Your task to perform on an android device: Clear the shopping cart on target. Image 0: 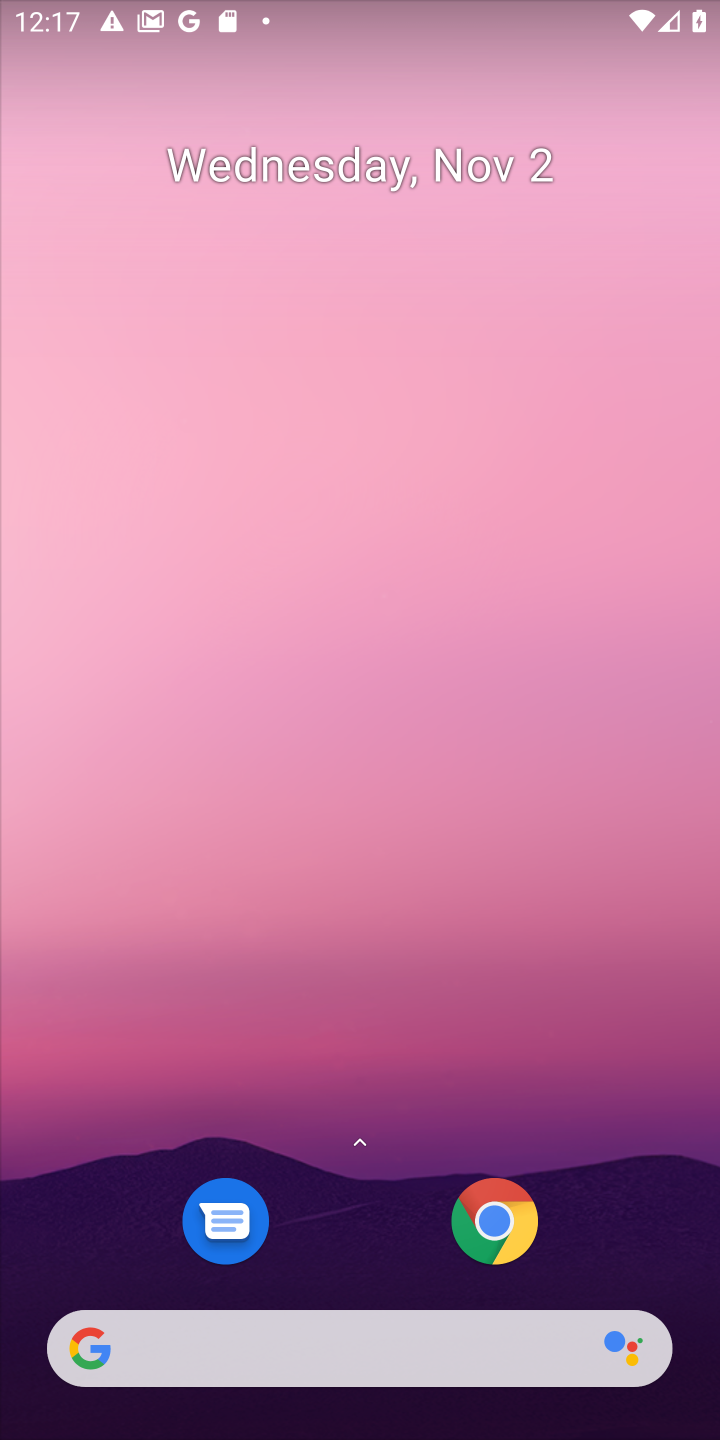
Step 0: press home button
Your task to perform on an android device: Clear the shopping cart on target. Image 1: 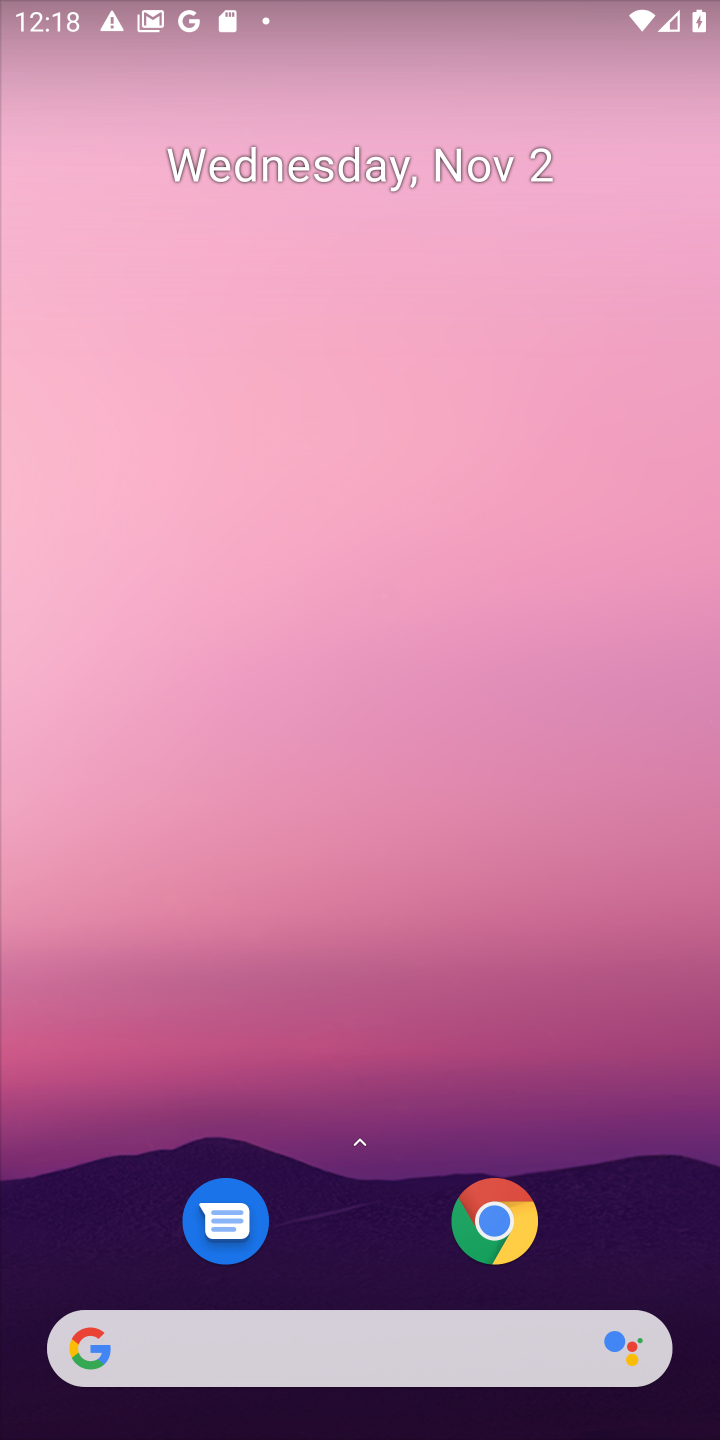
Step 1: click (288, 1341)
Your task to perform on an android device: Clear the shopping cart on target. Image 2: 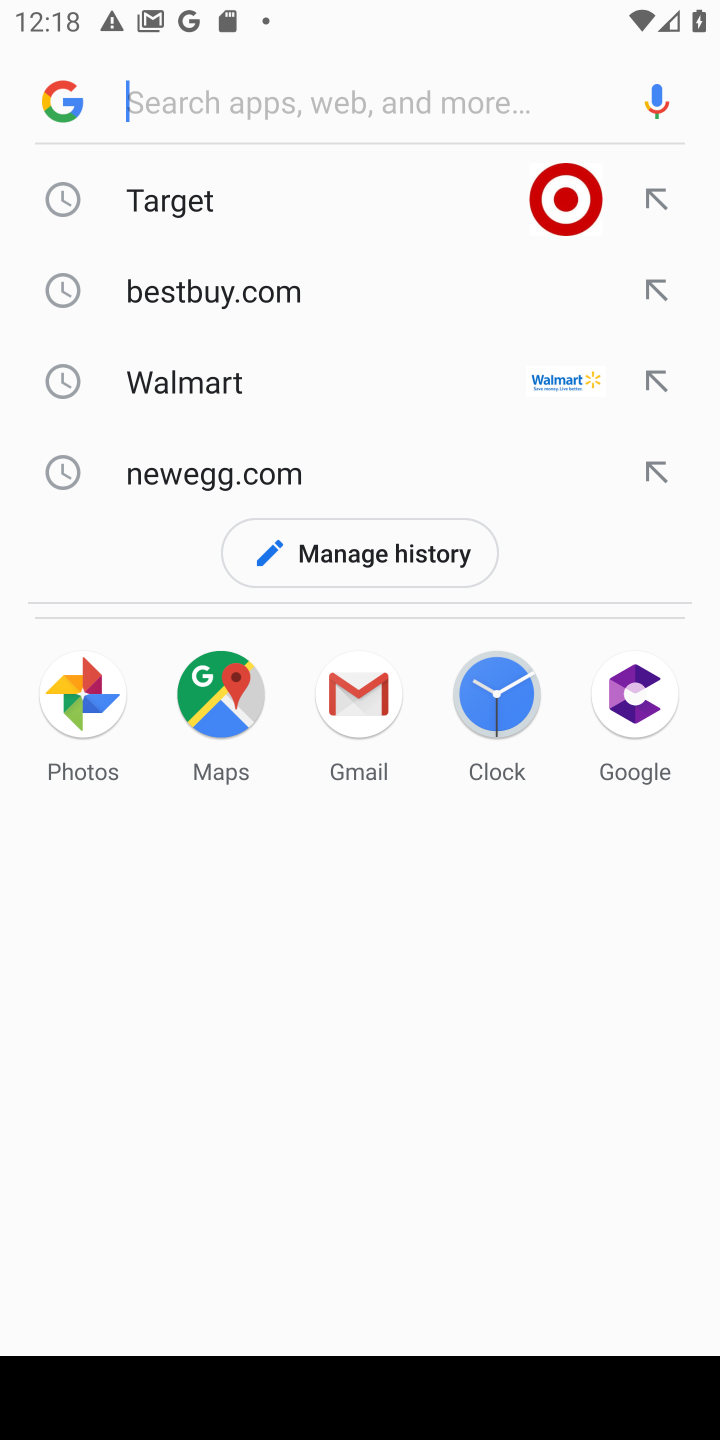
Step 2: click (233, 221)
Your task to perform on an android device: Clear the shopping cart on target. Image 3: 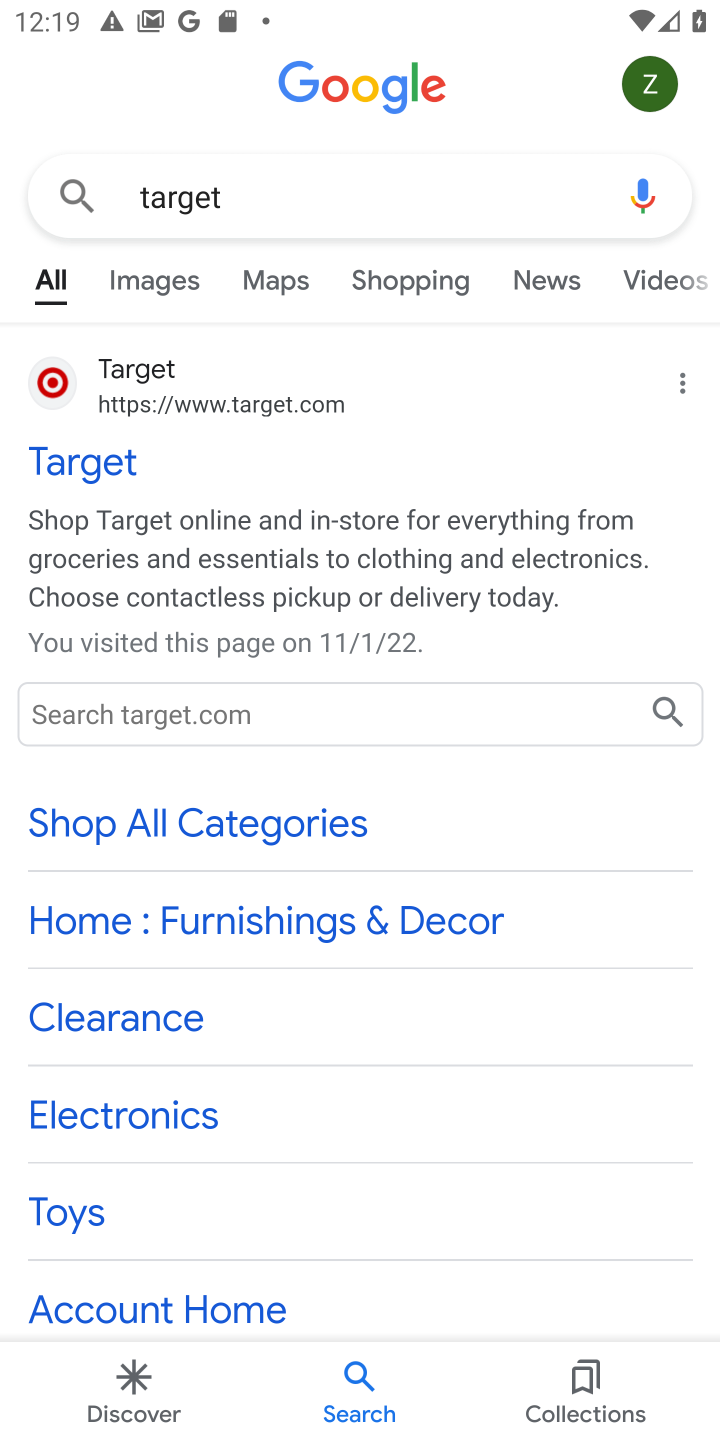
Step 3: click (37, 482)
Your task to perform on an android device: Clear the shopping cart on target. Image 4: 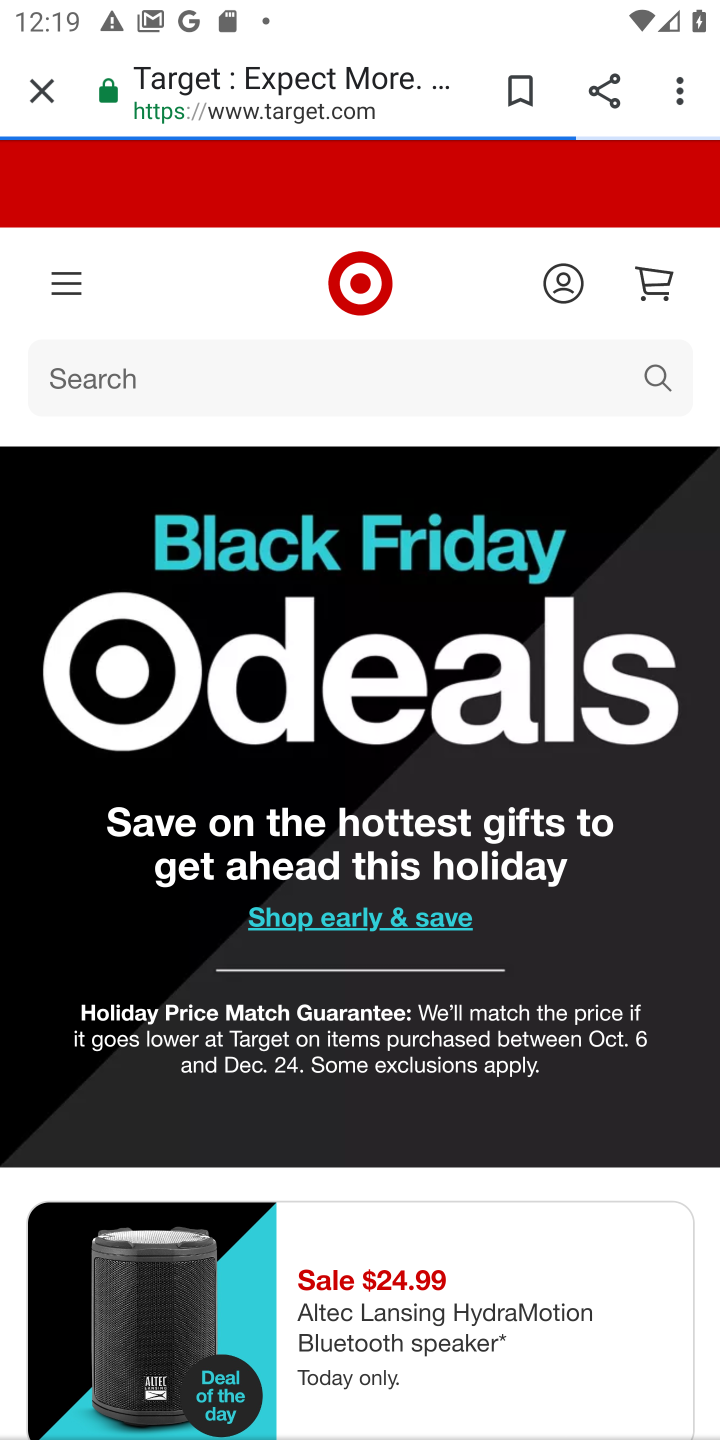
Step 4: click (418, 393)
Your task to perform on an android device: Clear the shopping cart on target. Image 5: 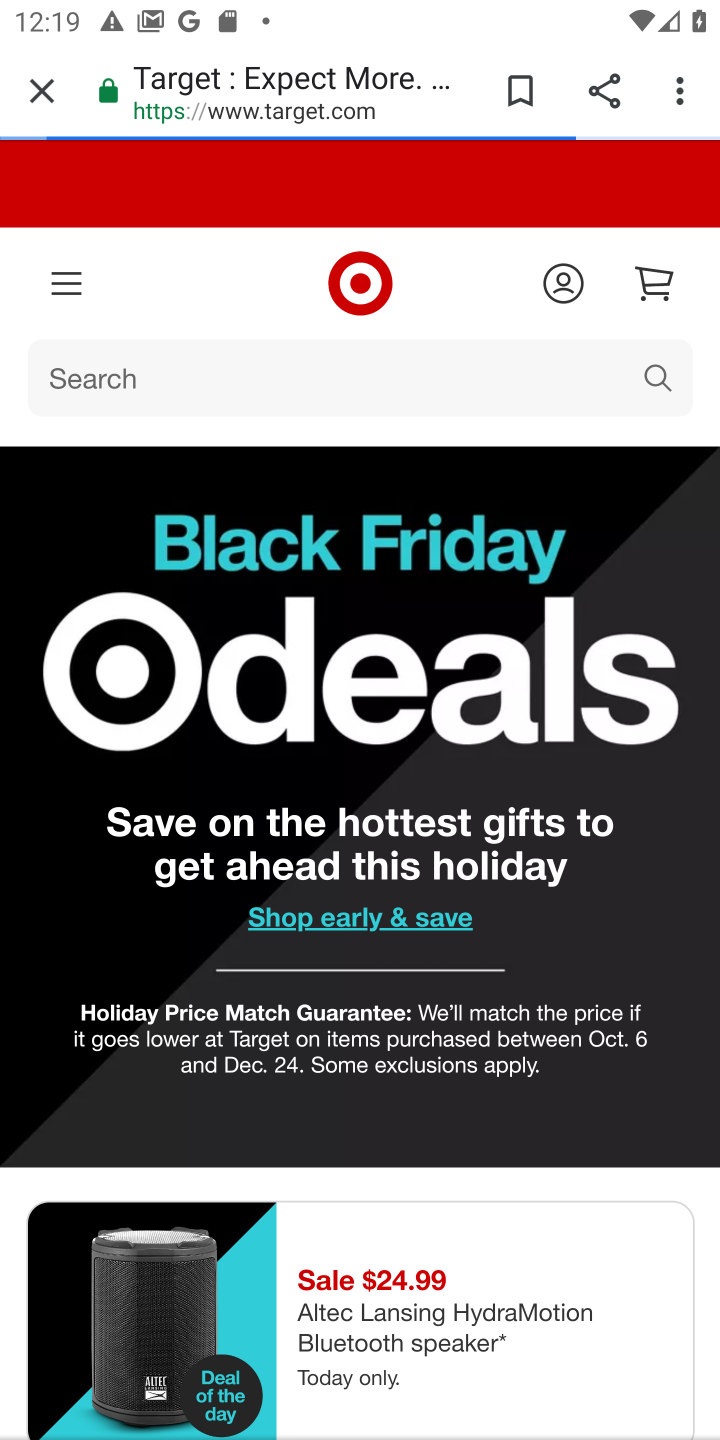
Step 5: click (655, 309)
Your task to perform on an android device: Clear the shopping cart on target. Image 6: 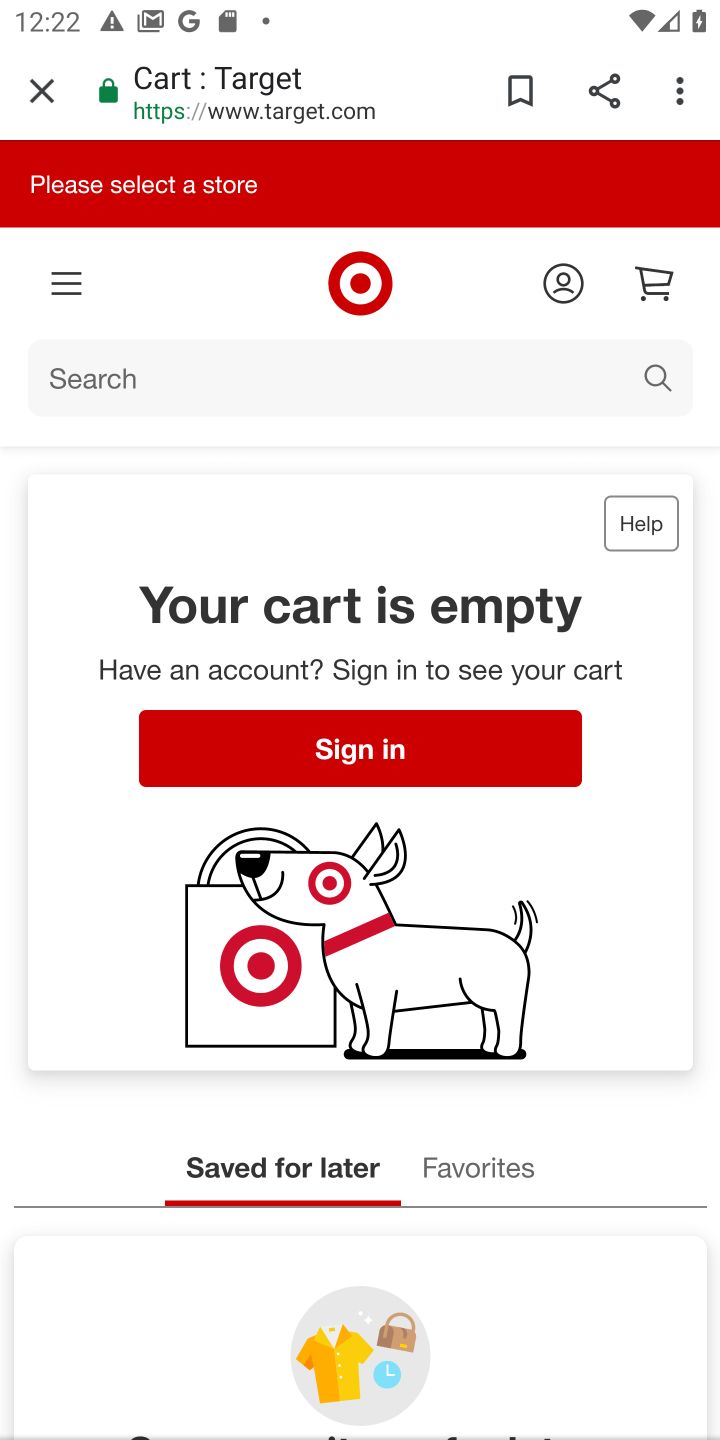
Step 6: task complete